Your task to perform on an android device: turn off priority inbox in the gmail app Image 0: 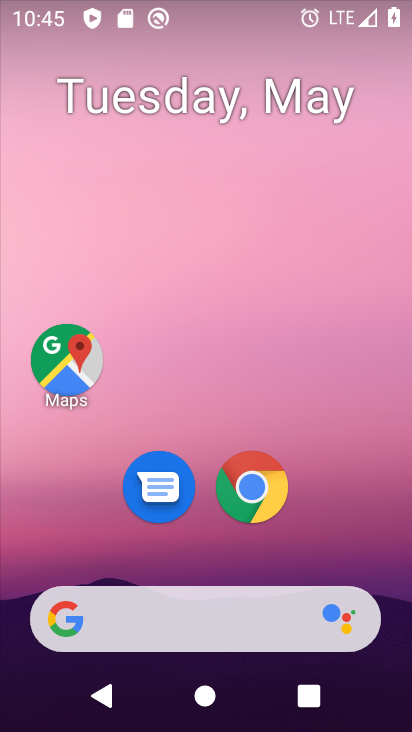
Step 0: drag from (206, 576) to (243, 162)
Your task to perform on an android device: turn off priority inbox in the gmail app Image 1: 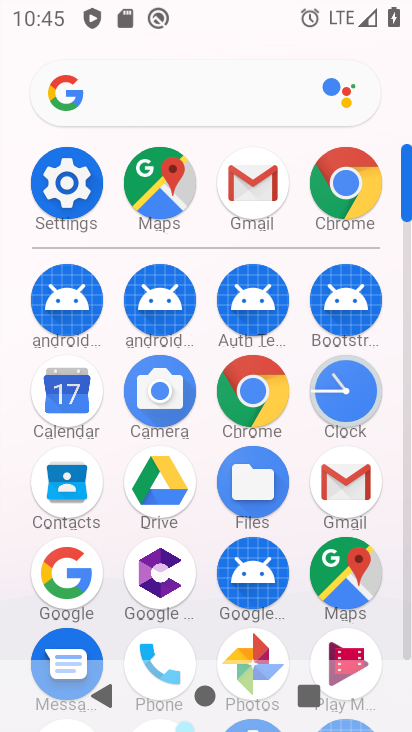
Step 1: click (344, 473)
Your task to perform on an android device: turn off priority inbox in the gmail app Image 2: 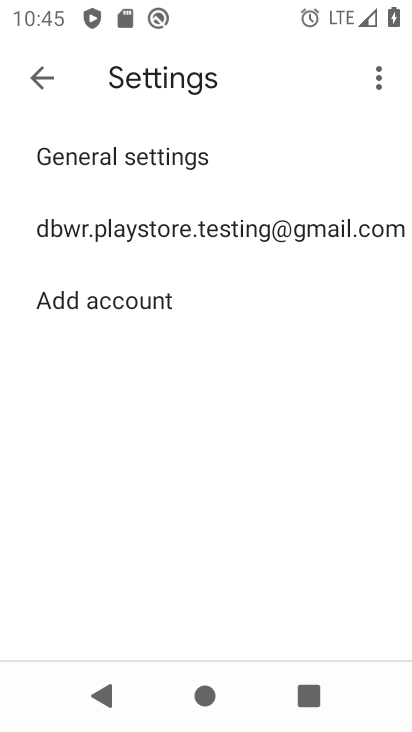
Step 2: click (165, 245)
Your task to perform on an android device: turn off priority inbox in the gmail app Image 3: 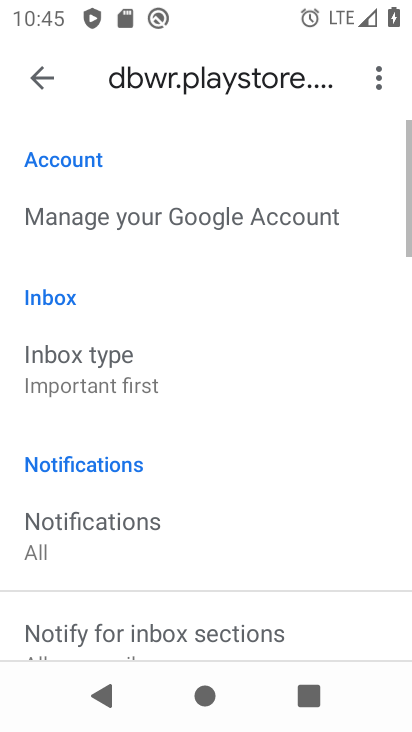
Step 3: click (137, 364)
Your task to perform on an android device: turn off priority inbox in the gmail app Image 4: 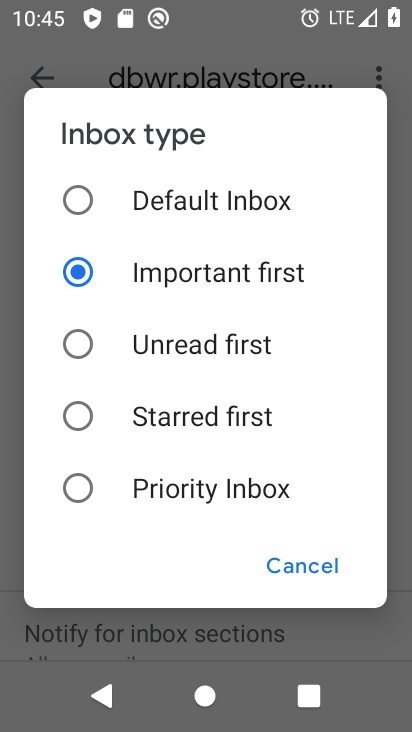
Step 4: click (95, 209)
Your task to perform on an android device: turn off priority inbox in the gmail app Image 5: 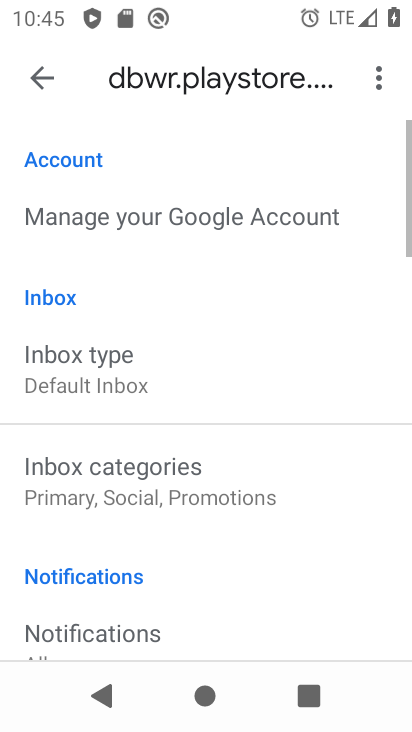
Step 5: task complete